Your task to perform on an android device: turn on notifications settings in the gmail app Image 0: 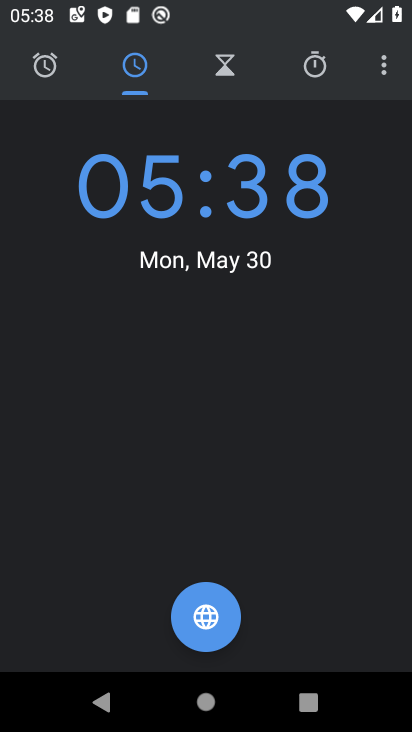
Step 0: press home button
Your task to perform on an android device: turn on notifications settings in the gmail app Image 1: 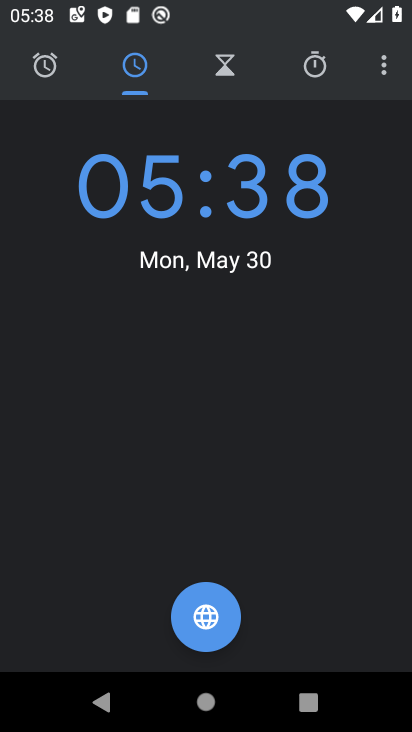
Step 1: press home button
Your task to perform on an android device: turn on notifications settings in the gmail app Image 2: 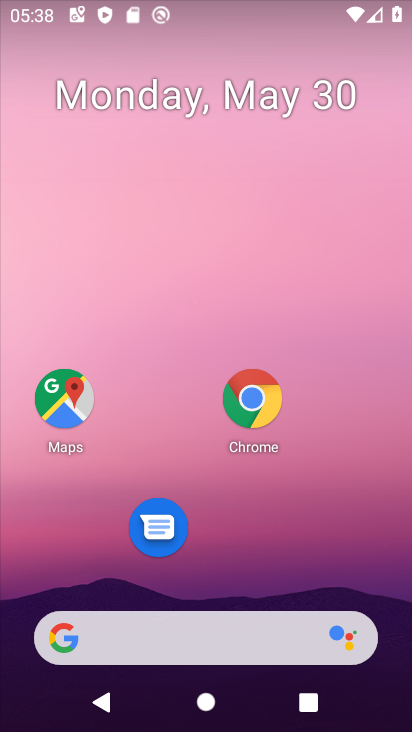
Step 2: drag from (231, 720) to (195, 99)
Your task to perform on an android device: turn on notifications settings in the gmail app Image 3: 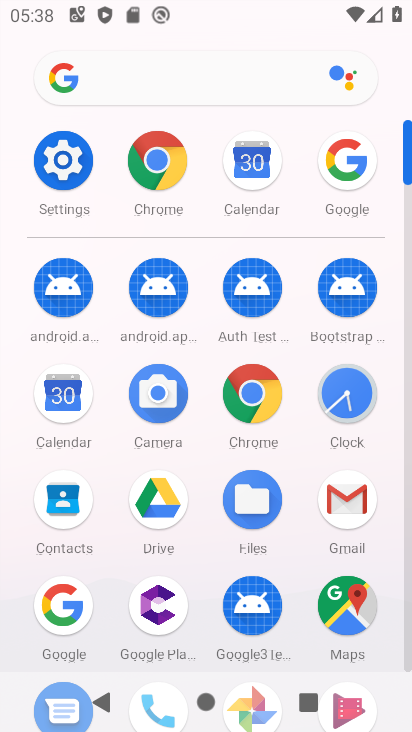
Step 3: click (352, 500)
Your task to perform on an android device: turn on notifications settings in the gmail app Image 4: 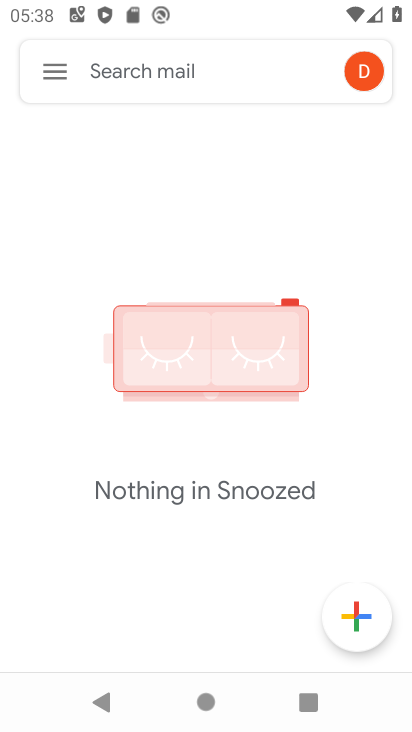
Step 4: click (53, 73)
Your task to perform on an android device: turn on notifications settings in the gmail app Image 5: 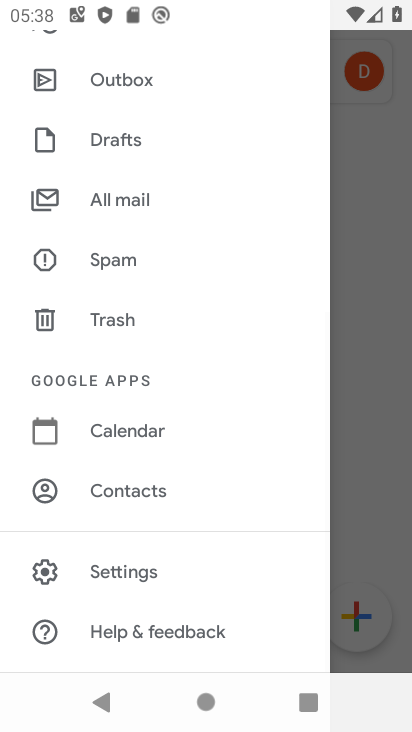
Step 5: click (129, 572)
Your task to perform on an android device: turn on notifications settings in the gmail app Image 6: 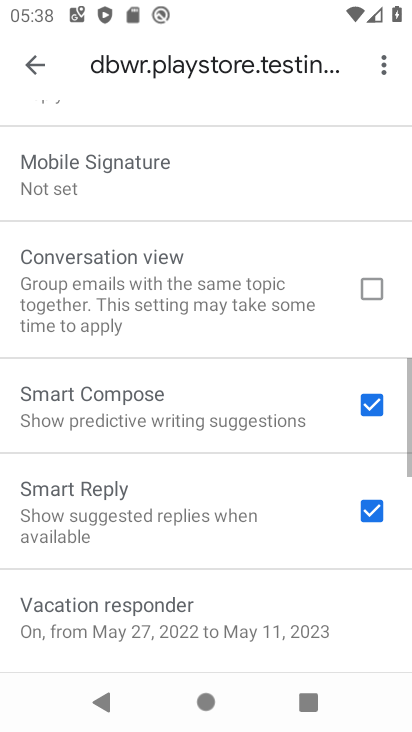
Step 6: drag from (158, 611) to (179, 226)
Your task to perform on an android device: turn on notifications settings in the gmail app Image 7: 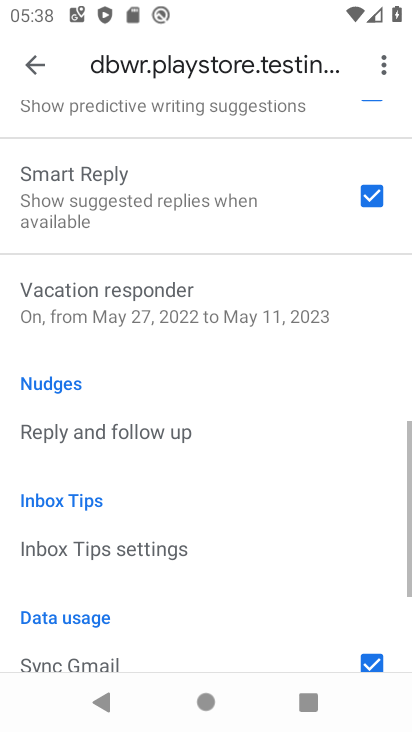
Step 7: click (179, 92)
Your task to perform on an android device: turn on notifications settings in the gmail app Image 8: 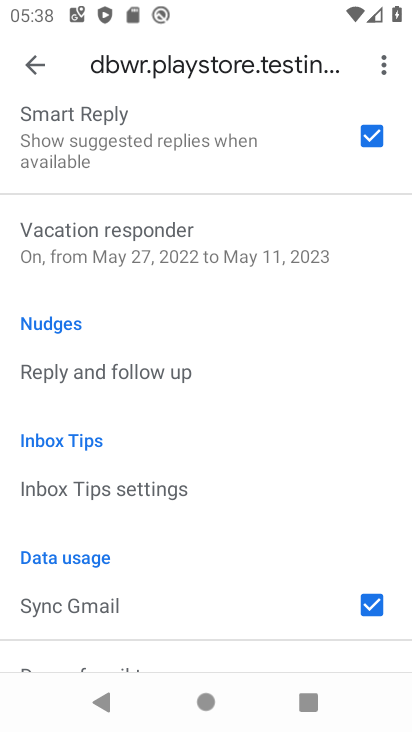
Step 8: task complete